Your task to perform on an android device: turn on showing notifications on the lock screen Image 0: 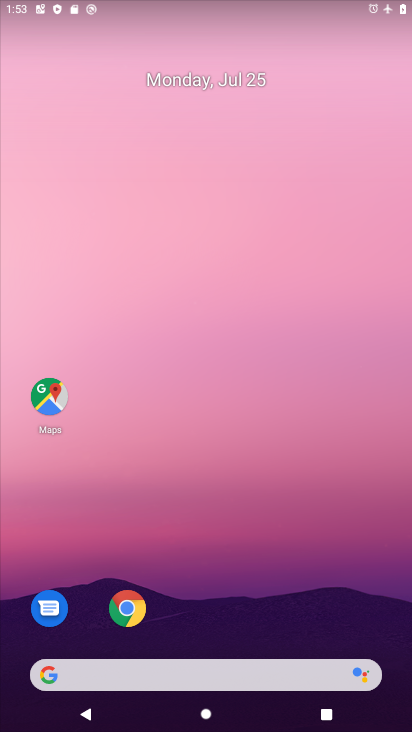
Step 0: drag from (265, 563) to (231, 22)
Your task to perform on an android device: turn on showing notifications on the lock screen Image 1: 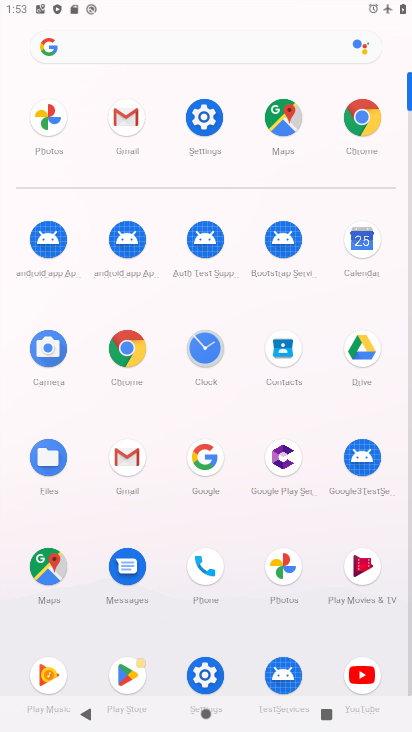
Step 1: click (202, 129)
Your task to perform on an android device: turn on showing notifications on the lock screen Image 2: 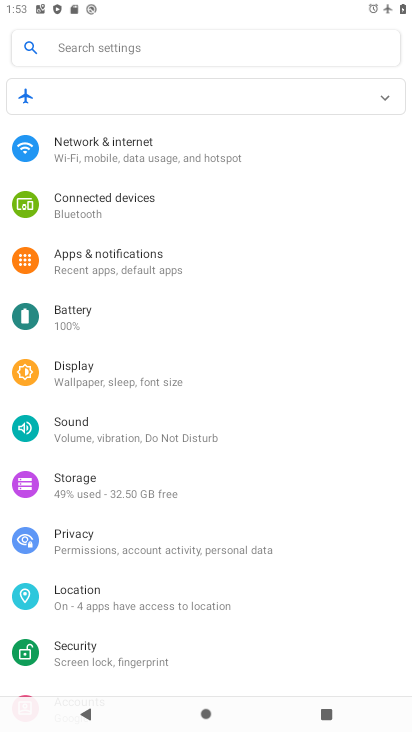
Step 2: click (121, 268)
Your task to perform on an android device: turn on showing notifications on the lock screen Image 3: 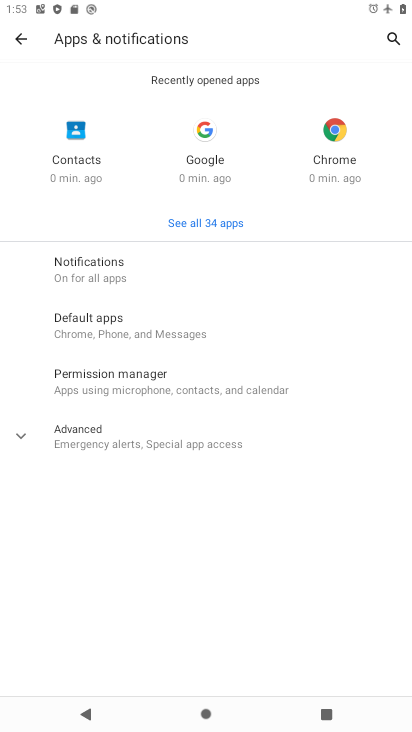
Step 3: click (116, 268)
Your task to perform on an android device: turn on showing notifications on the lock screen Image 4: 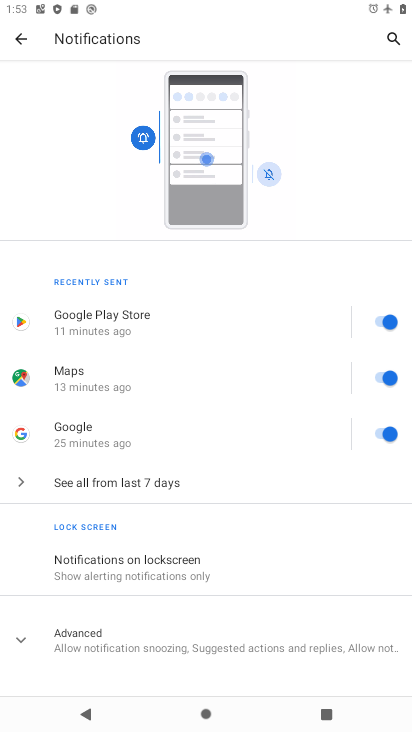
Step 4: click (191, 569)
Your task to perform on an android device: turn on showing notifications on the lock screen Image 5: 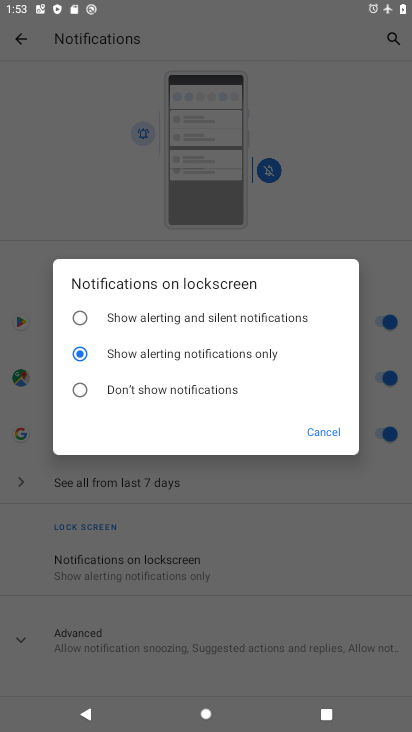
Step 5: task complete